Your task to perform on an android device: Open the Play Movies app and select the watchlist tab. Image 0: 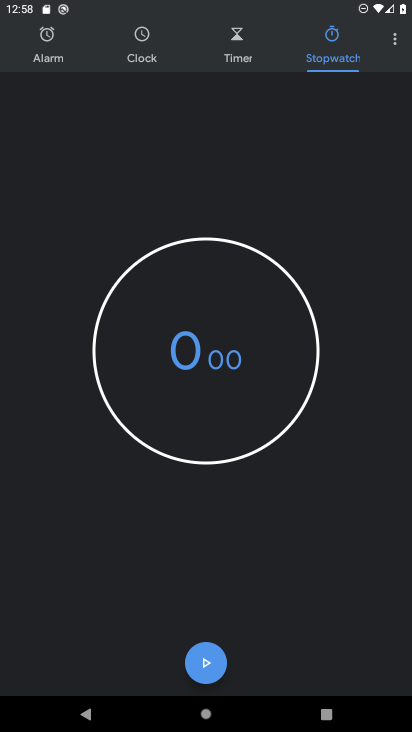
Step 0: press home button
Your task to perform on an android device: Open the Play Movies app and select the watchlist tab. Image 1: 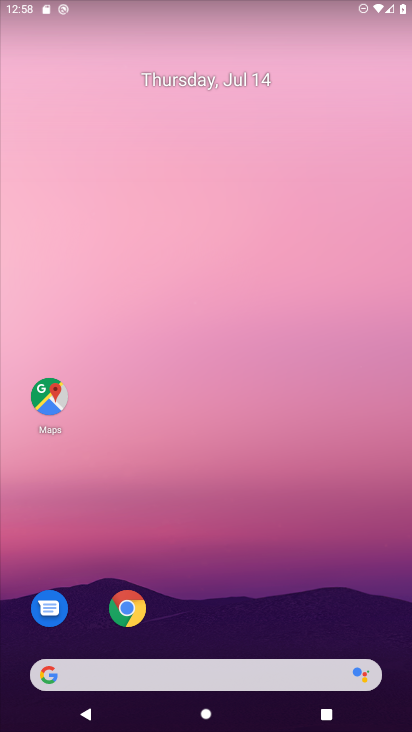
Step 1: drag from (240, 725) to (251, 663)
Your task to perform on an android device: Open the Play Movies app and select the watchlist tab. Image 2: 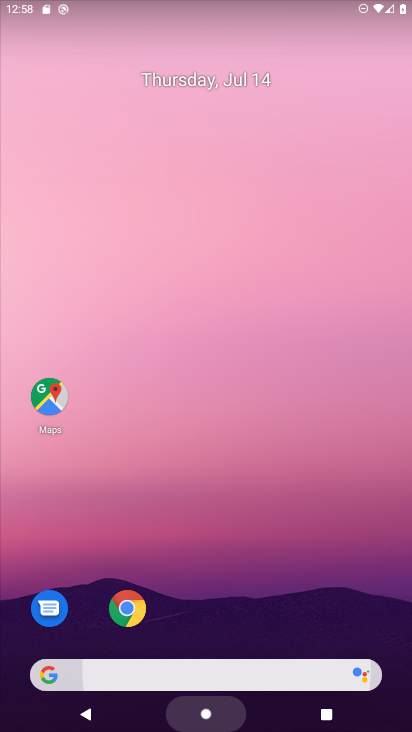
Step 2: click (261, 0)
Your task to perform on an android device: Open the Play Movies app and select the watchlist tab. Image 3: 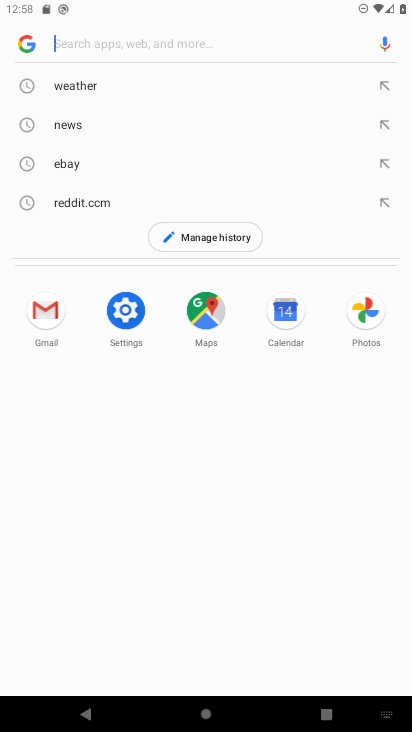
Step 3: press home button
Your task to perform on an android device: Open the Play Movies app and select the watchlist tab. Image 4: 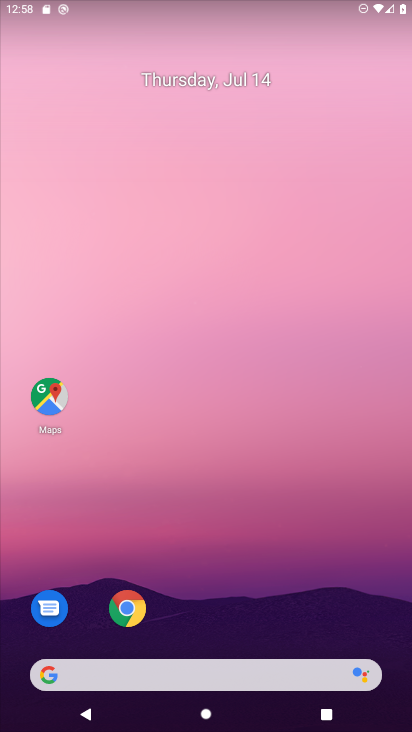
Step 4: drag from (252, 699) to (260, 169)
Your task to perform on an android device: Open the Play Movies app and select the watchlist tab. Image 5: 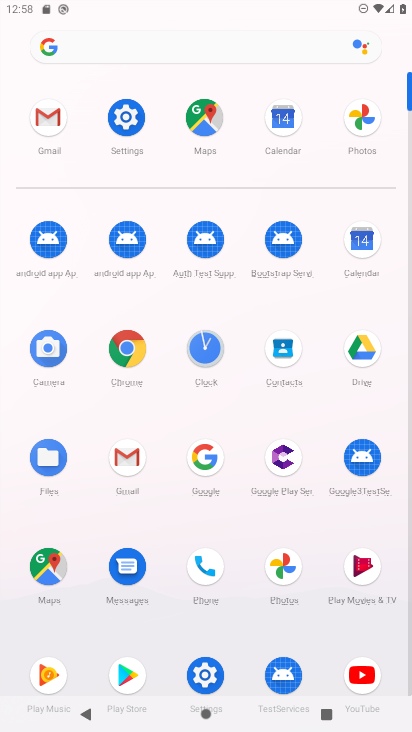
Step 5: click (363, 568)
Your task to perform on an android device: Open the Play Movies app and select the watchlist tab. Image 6: 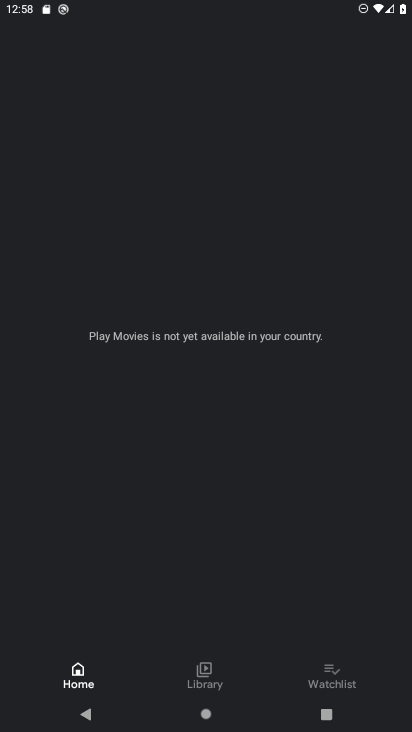
Step 6: click (331, 669)
Your task to perform on an android device: Open the Play Movies app and select the watchlist tab. Image 7: 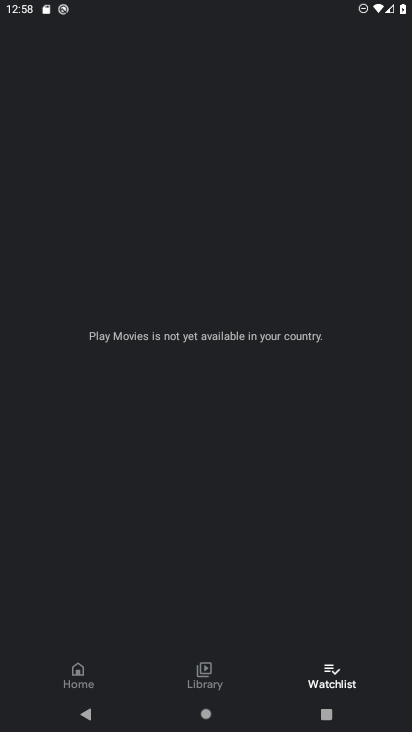
Step 7: task complete